Your task to perform on an android device: turn off location Image 0: 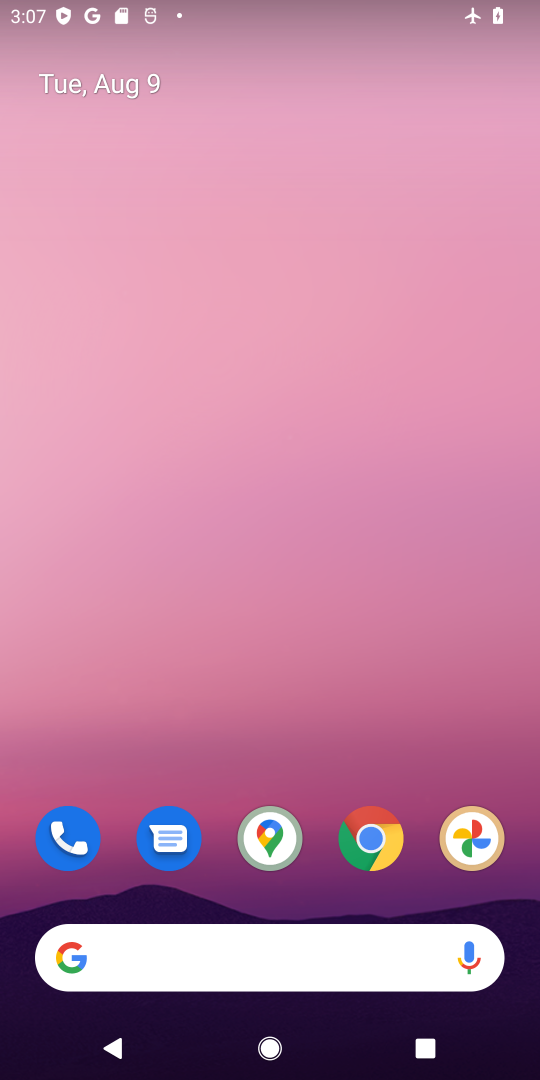
Step 0: drag from (308, 877) to (420, 82)
Your task to perform on an android device: turn off location Image 1: 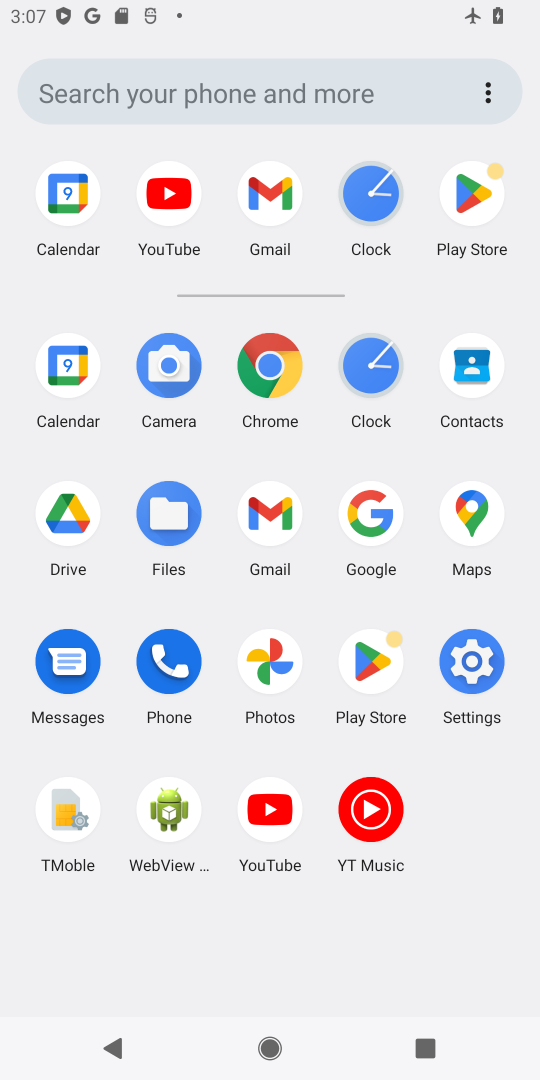
Step 1: click (475, 654)
Your task to perform on an android device: turn off location Image 2: 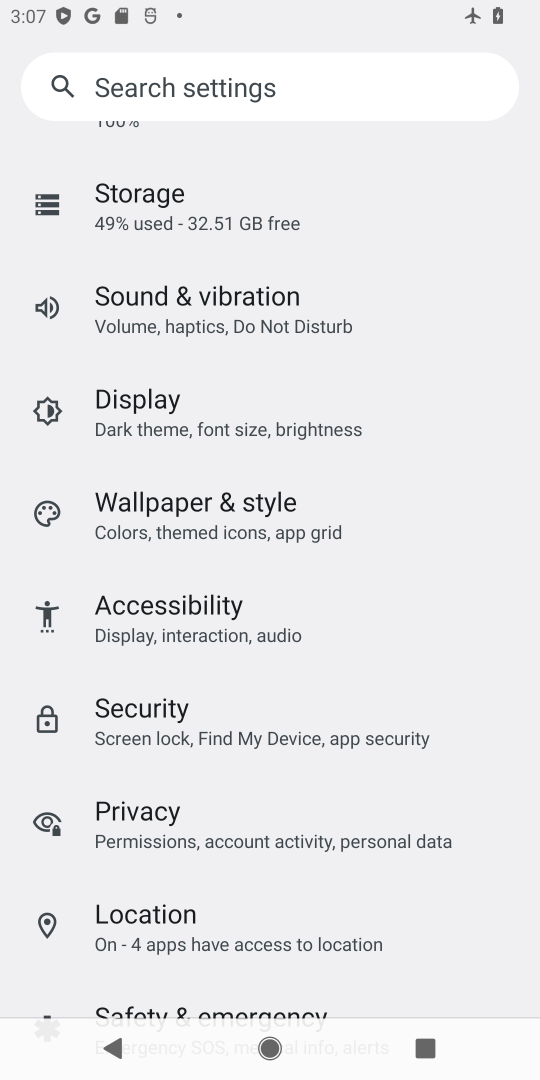
Step 2: click (173, 935)
Your task to perform on an android device: turn off location Image 3: 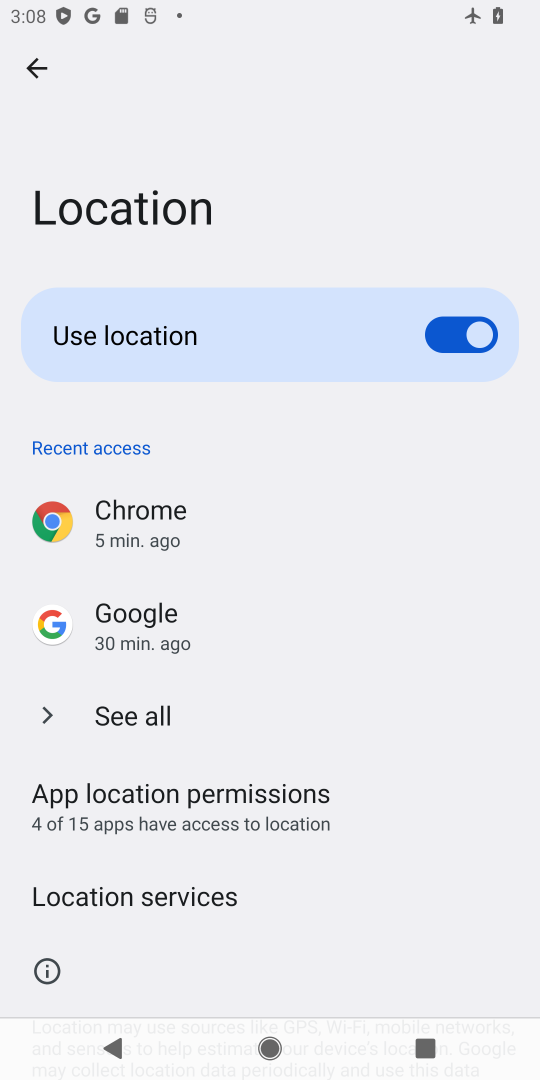
Step 3: click (509, 310)
Your task to perform on an android device: turn off location Image 4: 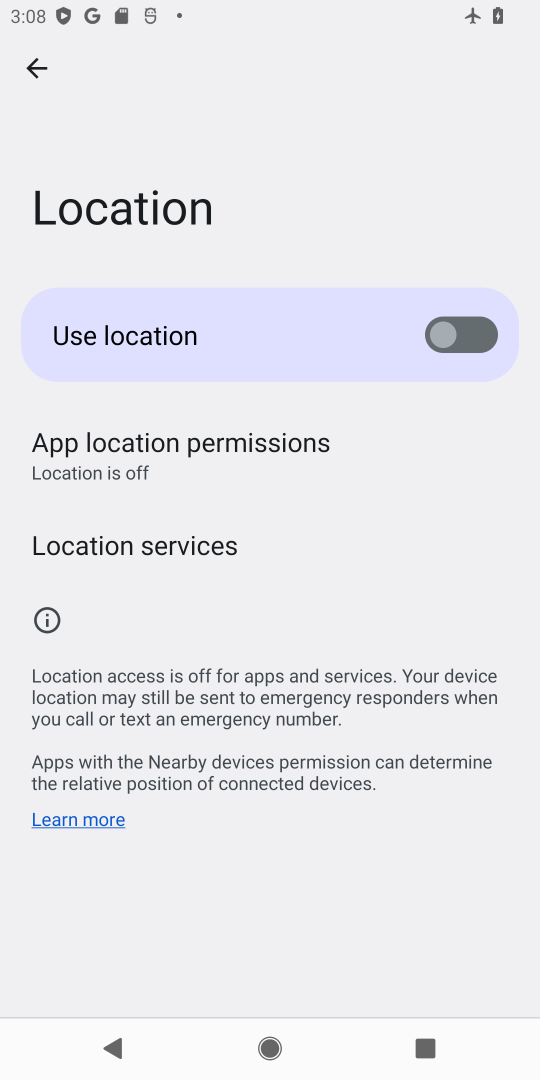
Step 4: task complete